Your task to perform on an android device: set default search engine in the chrome app Image 0: 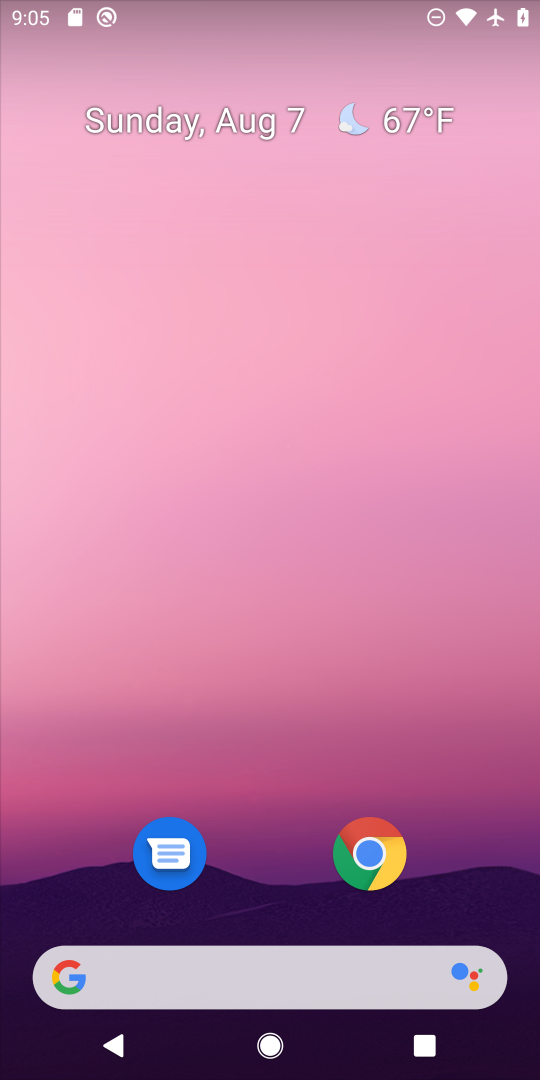
Step 0: drag from (233, 989) to (276, 255)
Your task to perform on an android device: set default search engine in the chrome app Image 1: 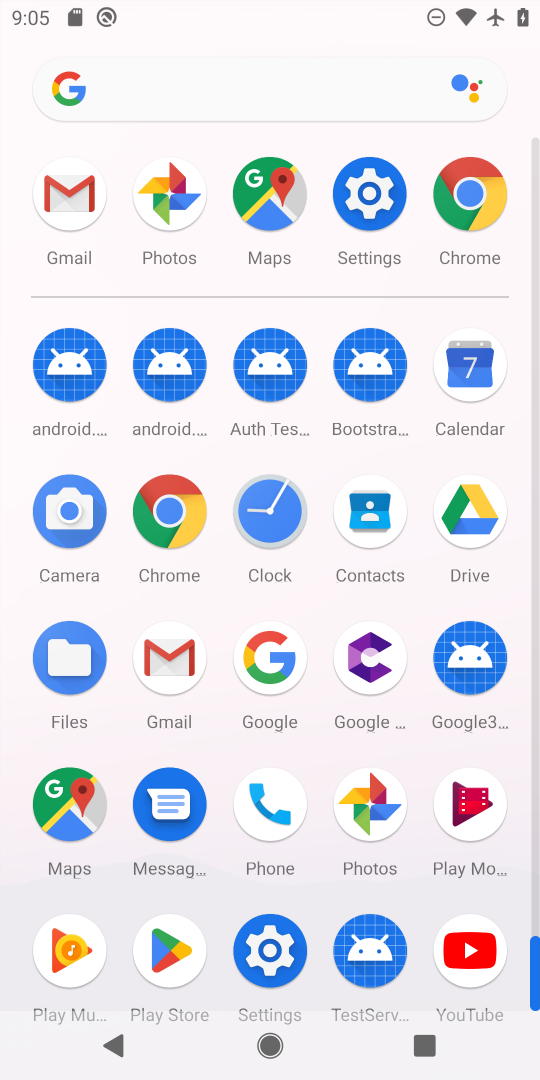
Step 1: click (458, 233)
Your task to perform on an android device: set default search engine in the chrome app Image 2: 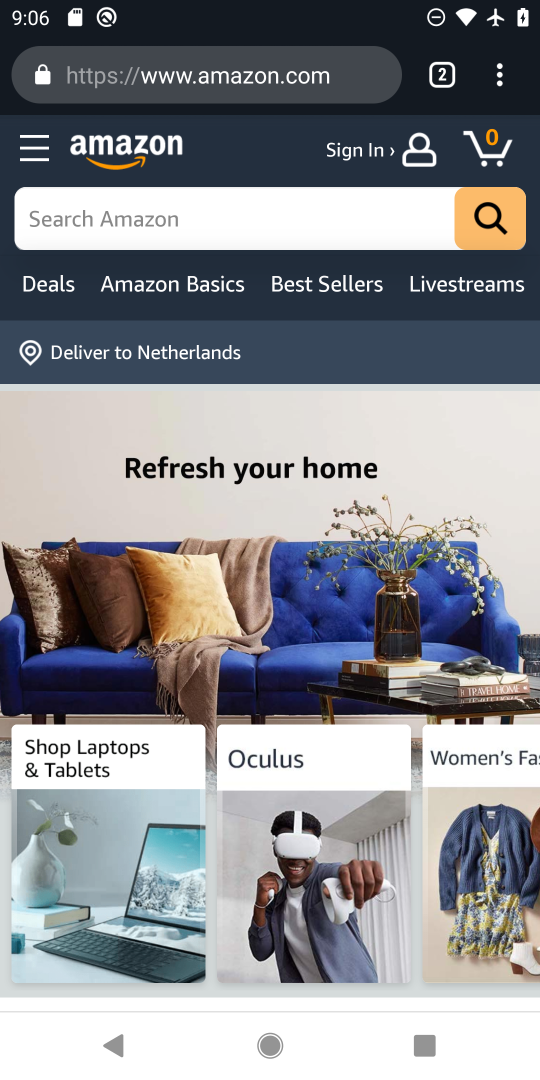
Step 2: click (504, 86)
Your task to perform on an android device: set default search engine in the chrome app Image 3: 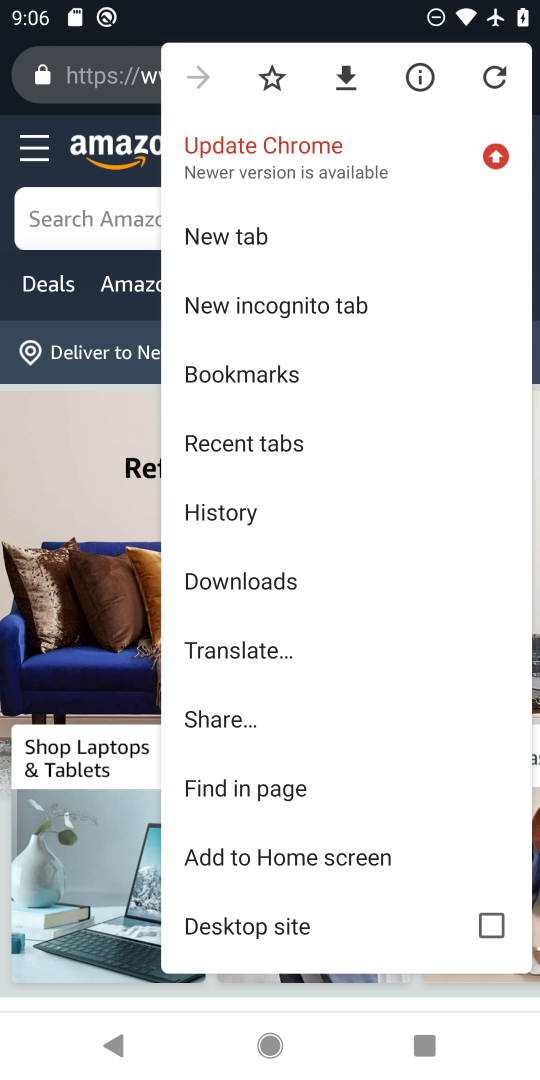
Step 3: drag from (260, 891) to (231, 227)
Your task to perform on an android device: set default search engine in the chrome app Image 4: 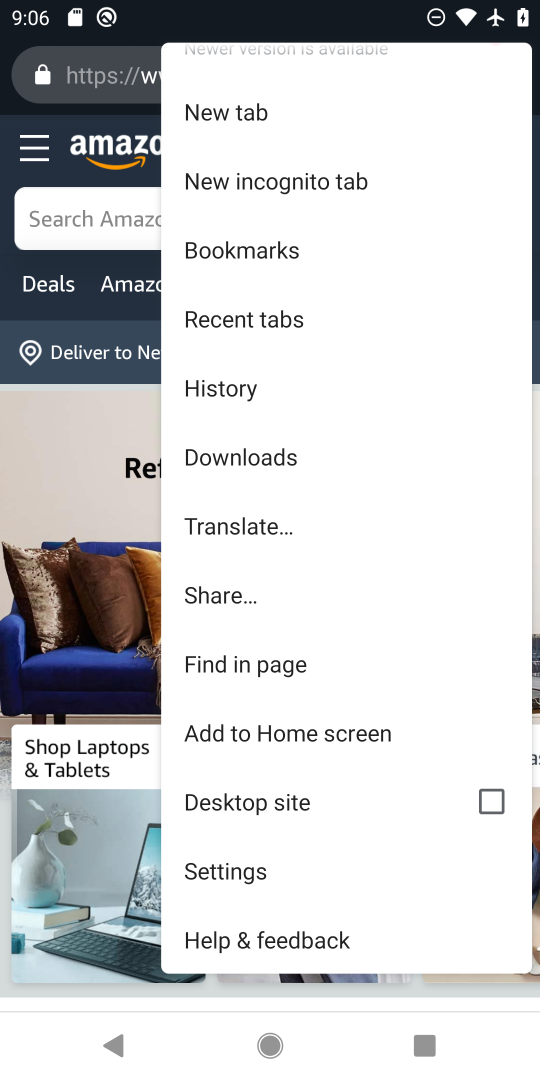
Step 4: click (252, 859)
Your task to perform on an android device: set default search engine in the chrome app Image 5: 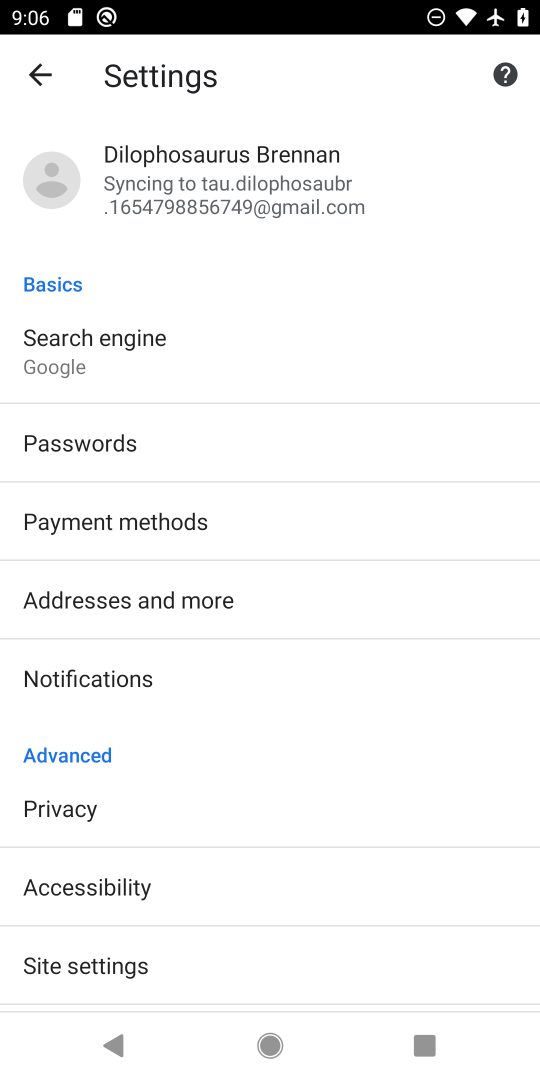
Step 5: drag from (277, 1005) to (297, 582)
Your task to perform on an android device: set default search engine in the chrome app Image 6: 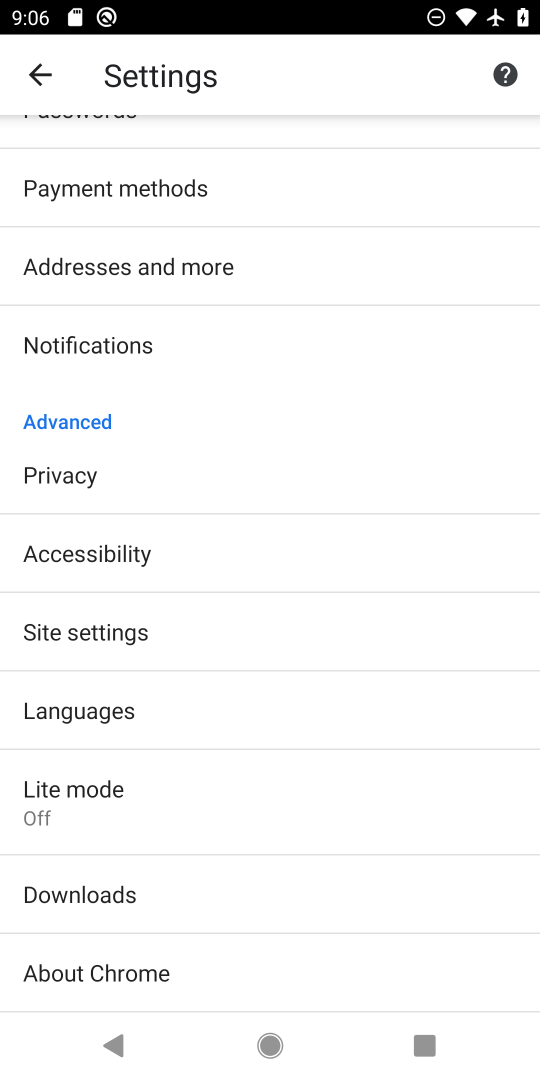
Step 6: drag from (165, 505) to (196, 937)
Your task to perform on an android device: set default search engine in the chrome app Image 7: 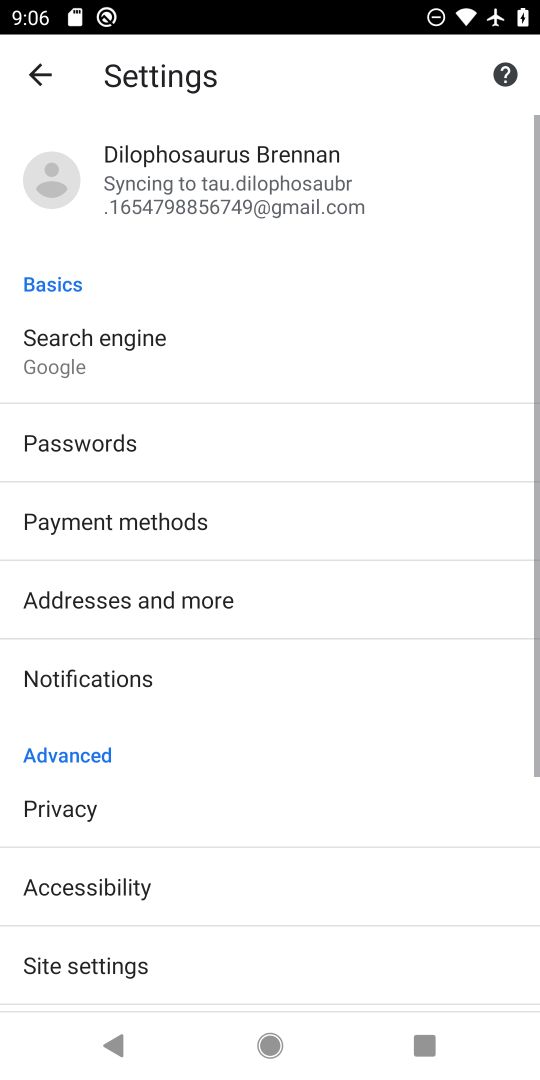
Step 7: click (119, 352)
Your task to perform on an android device: set default search engine in the chrome app Image 8: 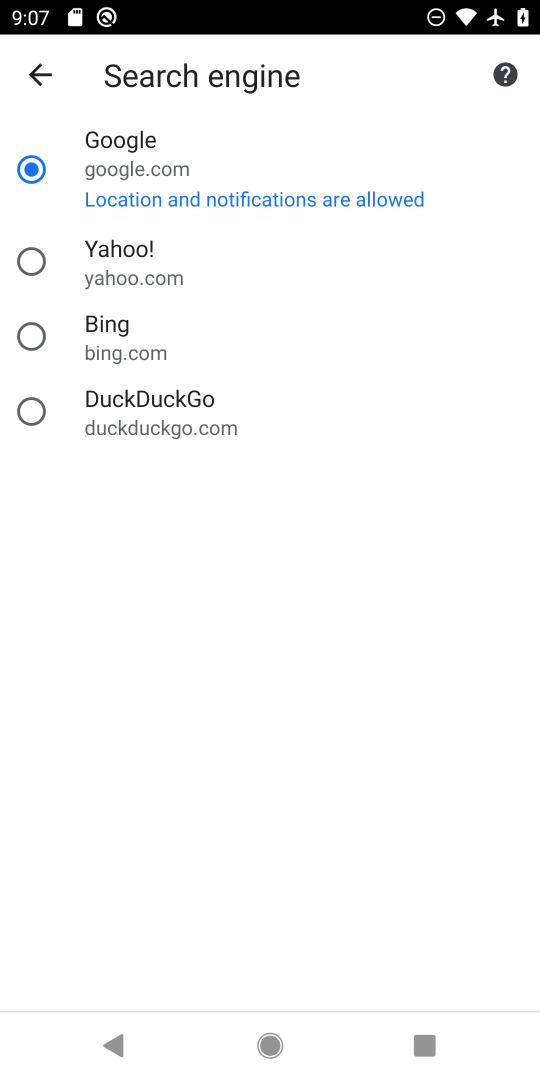
Step 8: task complete